Your task to perform on an android device: Open ESPN.com Image 0: 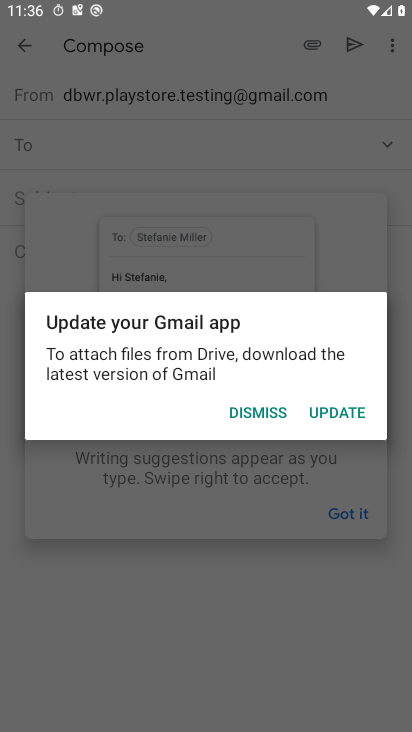
Step 0: press home button
Your task to perform on an android device: Open ESPN.com Image 1: 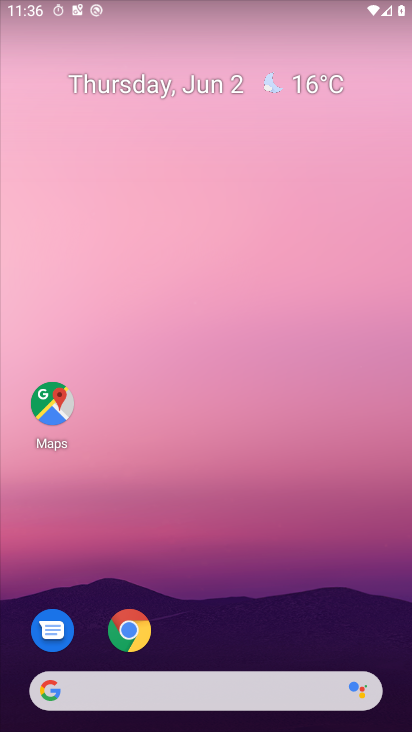
Step 1: click (127, 622)
Your task to perform on an android device: Open ESPN.com Image 2: 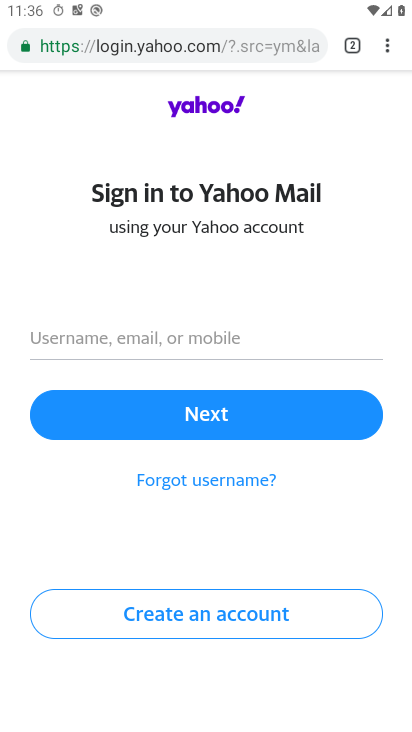
Step 2: click (227, 41)
Your task to perform on an android device: Open ESPN.com Image 3: 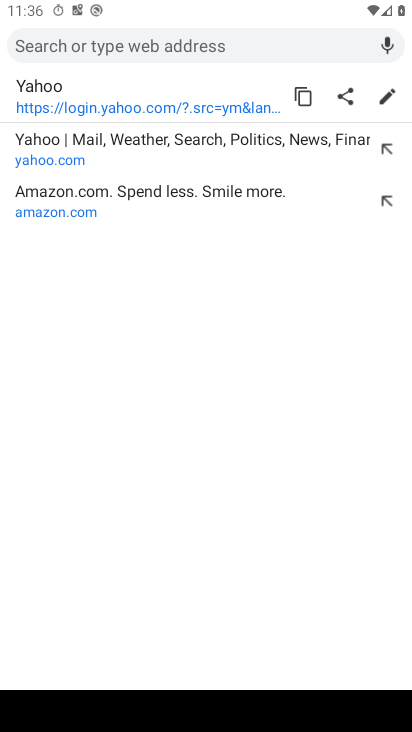
Step 3: type "ESPN.com"
Your task to perform on an android device: Open ESPN.com Image 4: 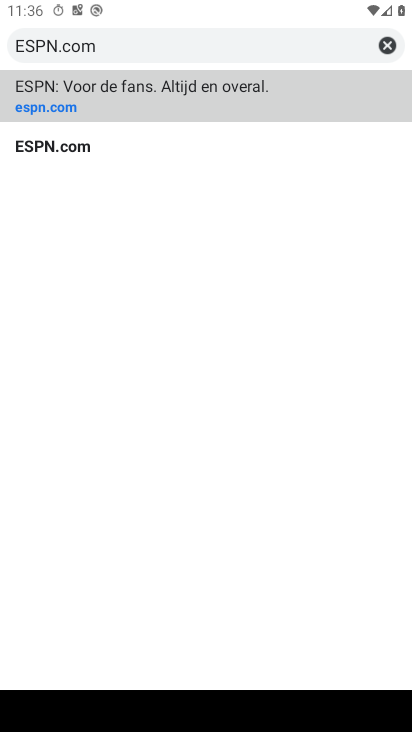
Step 4: click (55, 147)
Your task to perform on an android device: Open ESPN.com Image 5: 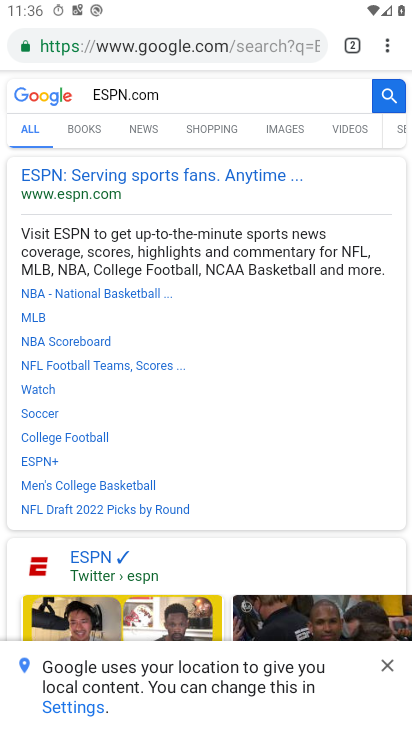
Step 5: task complete